Your task to perform on an android device: turn off javascript in the chrome app Image 0: 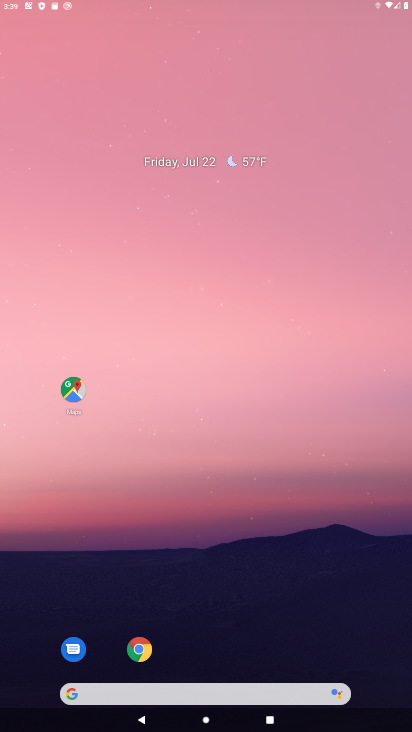
Step 0: drag from (57, 631) to (291, 112)
Your task to perform on an android device: turn off javascript in the chrome app Image 1: 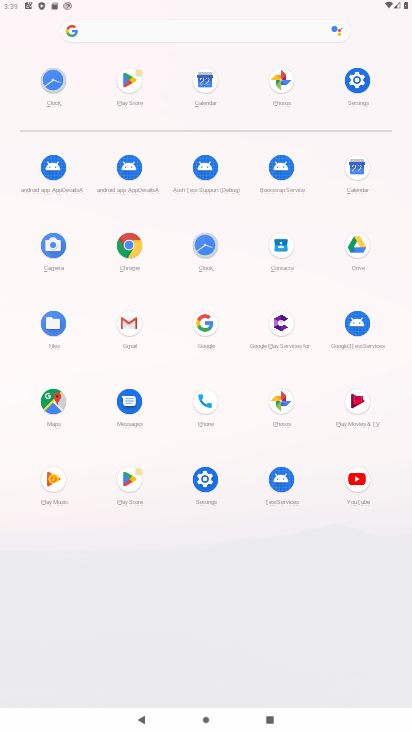
Step 1: click (116, 240)
Your task to perform on an android device: turn off javascript in the chrome app Image 2: 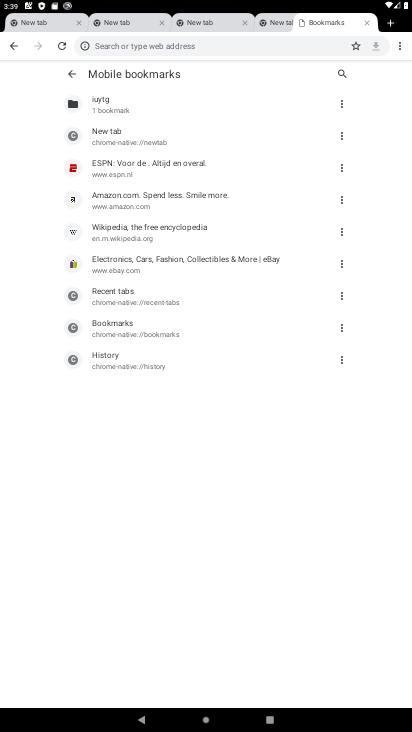
Step 2: click (404, 46)
Your task to perform on an android device: turn off javascript in the chrome app Image 3: 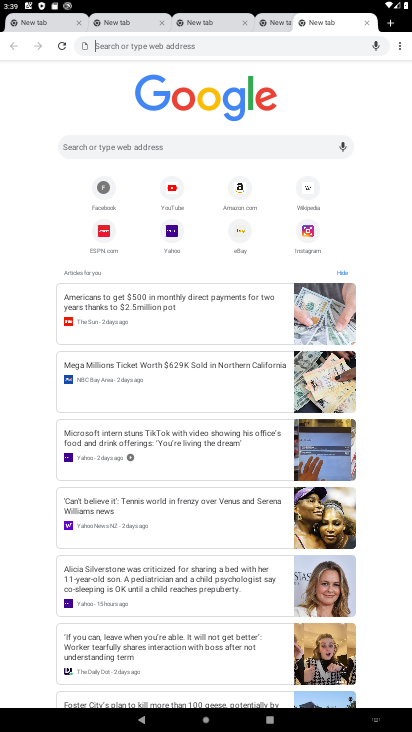
Step 3: click (401, 46)
Your task to perform on an android device: turn off javascript in the chrome app Image 4: 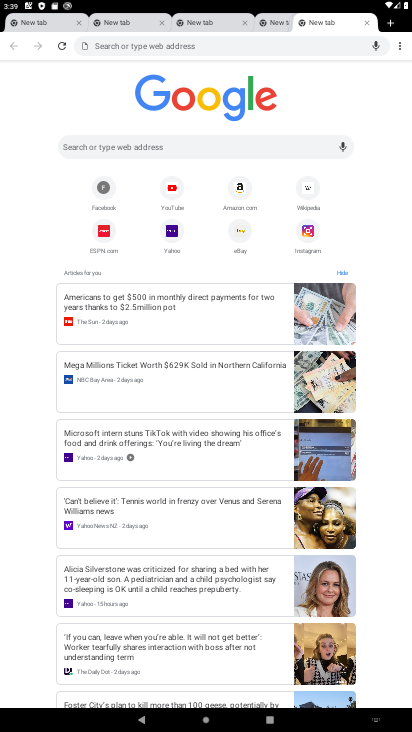
Step 4: click (398, 41)
Your task to perform on an android device: turn off javascript in the chrome app Image 5: 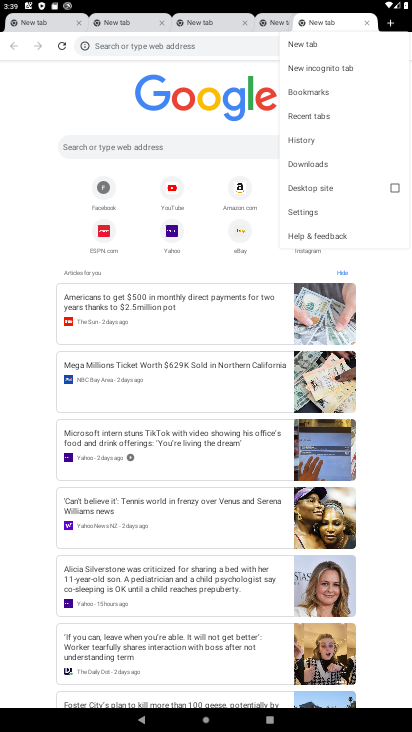
Step 5: click (303, 207)
Your task to perform on an android device: turn off javascript in the chrome app Image 6: 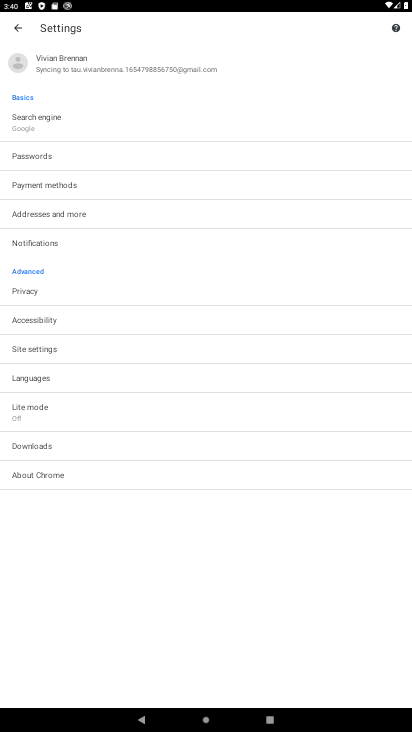
Step 6: click (35, 353)
Your task to perform on an android device: turn off javascript in the chrome app Image 7: 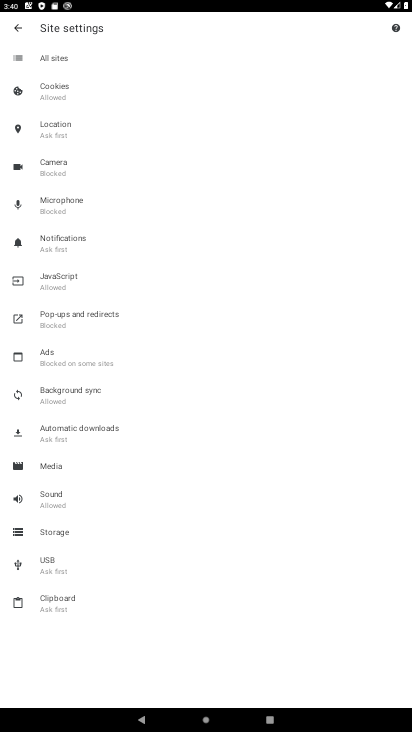
Step 7: click (65, 287)
Your task to perform on an android device: turn off javascript in the chrome app Image 8: 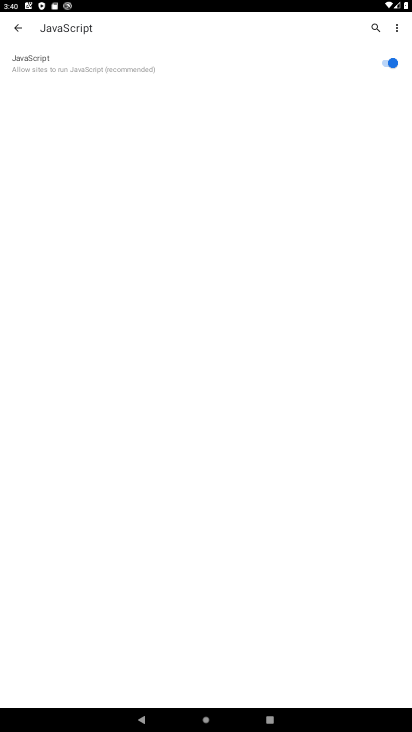
Step 8: task complete